Your task to perform on an android device: Go to battery settings Image 0: 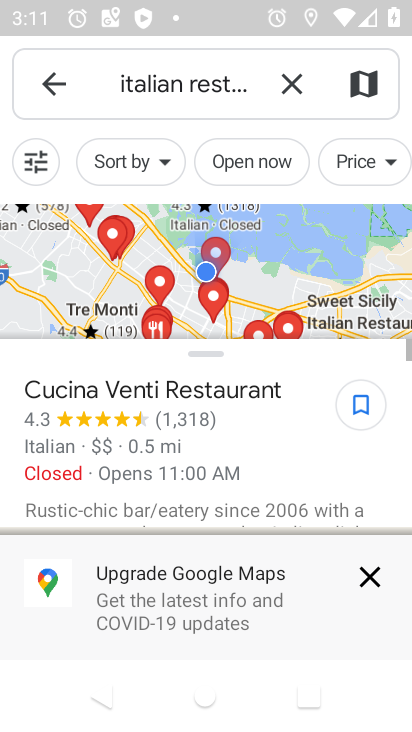
Step 0: drag from (231, 615) to (232, 261)
Your task to perform on an android device: Go to battery settings Image 1: 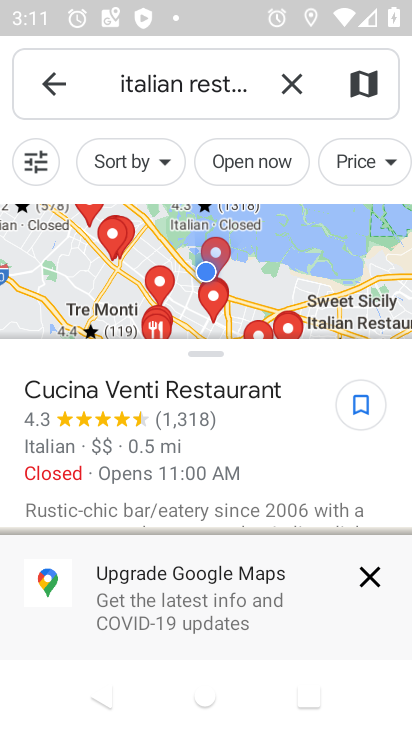
Step 1: press home button
Your task to perform on an android device: Go to battery settings Image 2: 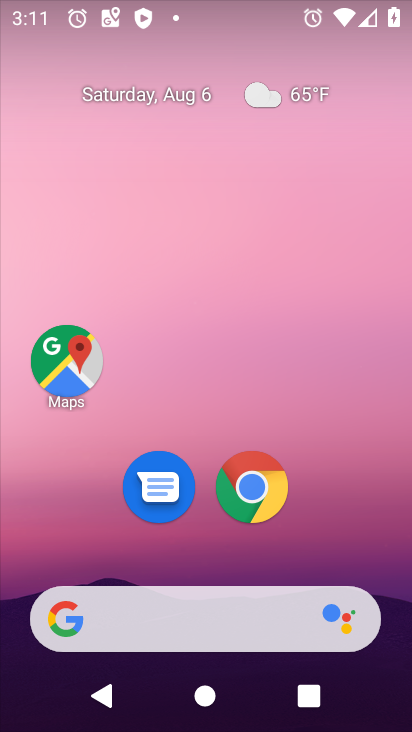
Step 2: drag from (186, 586) to (203, 121)
Your task to perform on an android device: Go to battery settings Image 3: 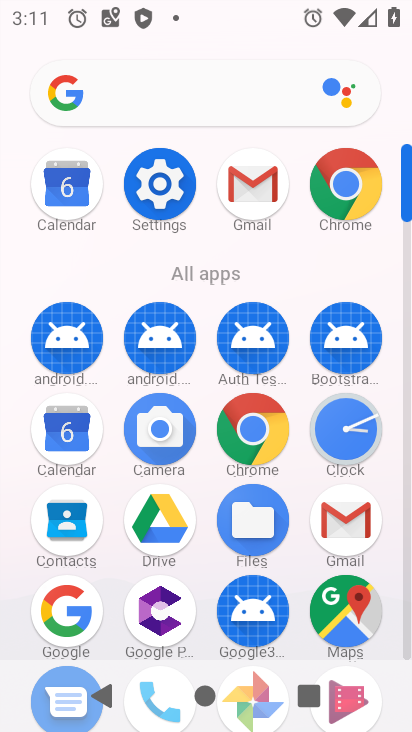
Step 3: click (163, 211)
Your task to perform on an android device: Go to battery settings Image 4: 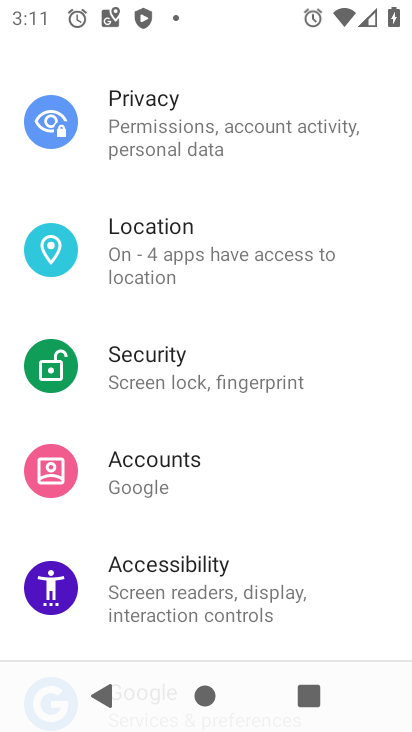
Step 4: drag from (224, 159) to (272, 554)
Your task to perform on an android device: Go to battery settings Image 5: 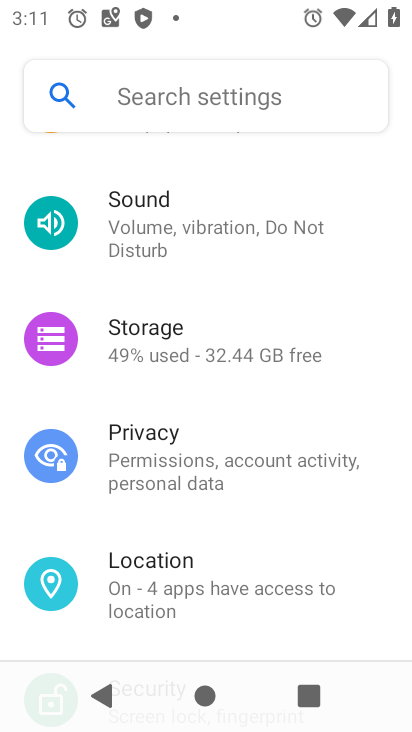
Step 5: drag from (160, 321) to (193, 605)
Your task to perform on an android device: Go to battery settings Image 6: 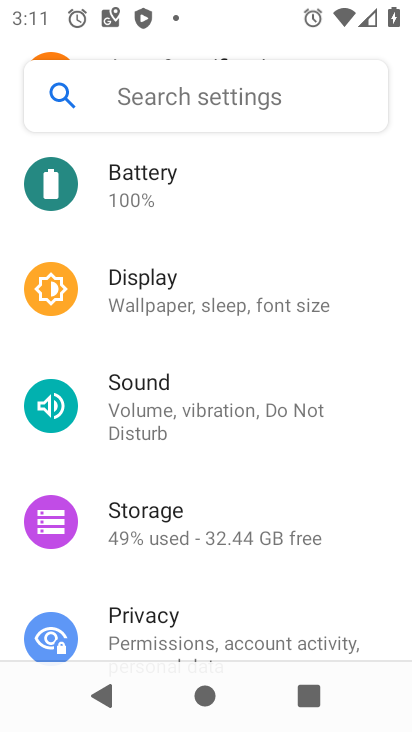
Step 6: click (120, 175)
Your task to perform on an android device: Go to battery settings Image 7: 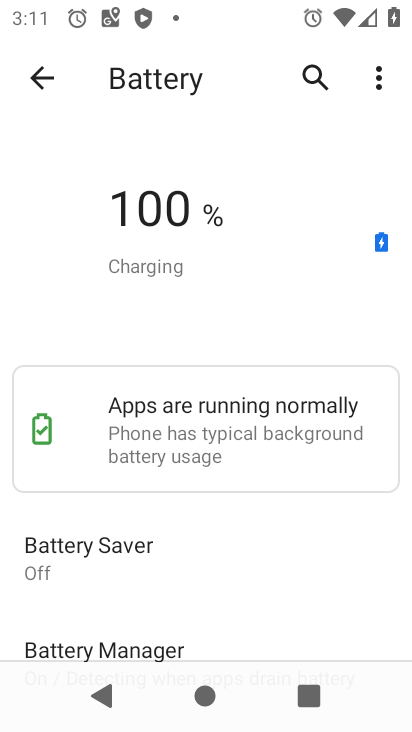
Step 7: task complete